Your task to perform on an android device: Open my contact list Image 0: 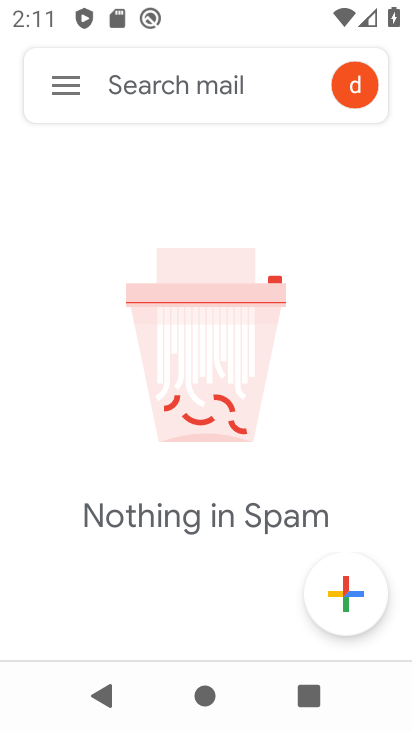
Step 0: press back button
Your task to perform on an android device: Open my contact list Image 1: 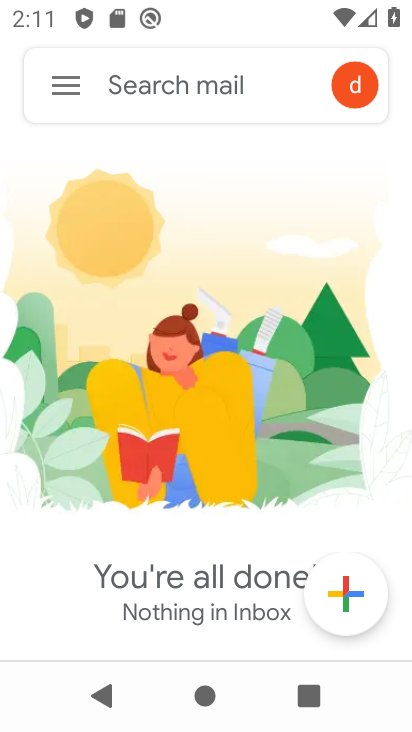
Step 1: press back button
Your task to perform on an android device: Open my contact list Image 2: 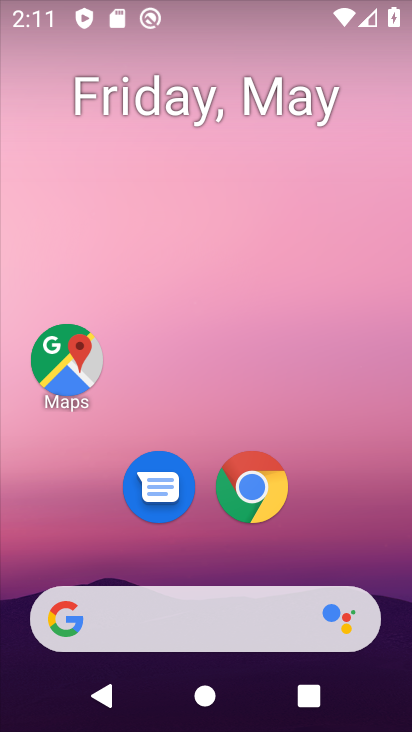
Step 2: drag from (178, 483) to (247, 12)
Your task to perform on an android device: Open my contact list Image 3: 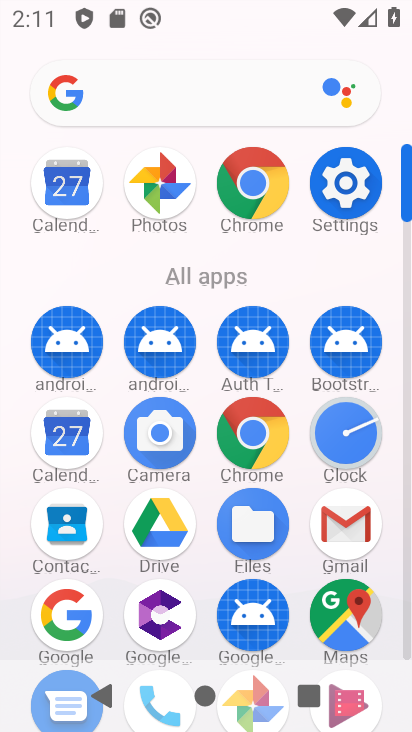
Step 3: click (69, 542)
Your task to perform on an android device: Open my contact list Image 4: 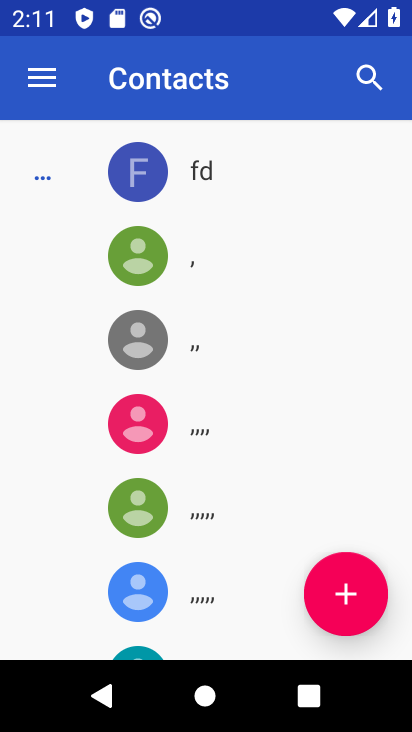
Step 4: task complete